Your task to perform on an android device: Open display settings Image 0: 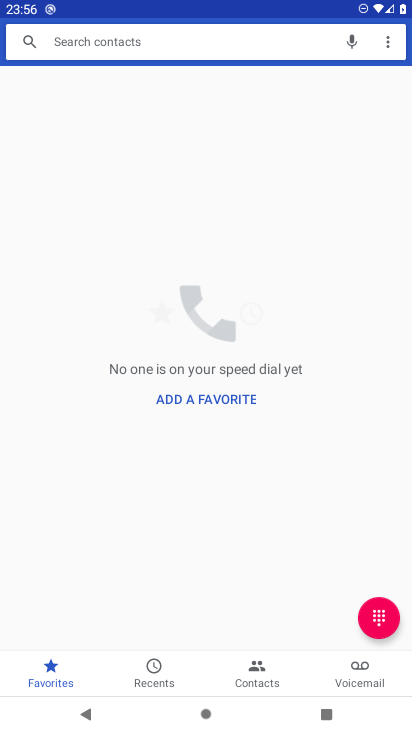
Step 0: press home button
Your task to perform on an android device: Open display settings Image 1: 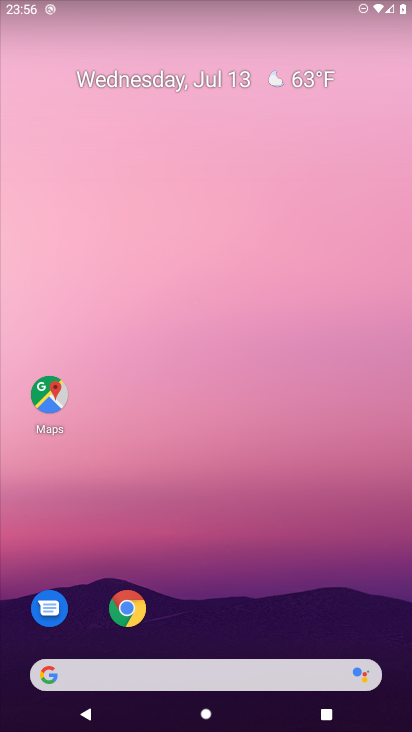
Step 1: drag from (247, 629) to (214, 102)
Your task to perform on an android device: Open display settings Image 2: 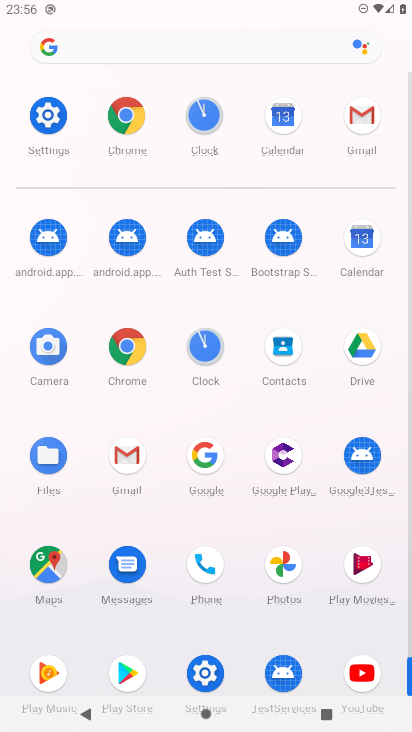
Step 2: click (51, 113)
Your task to perform on an android device: Open display settings Image 3: 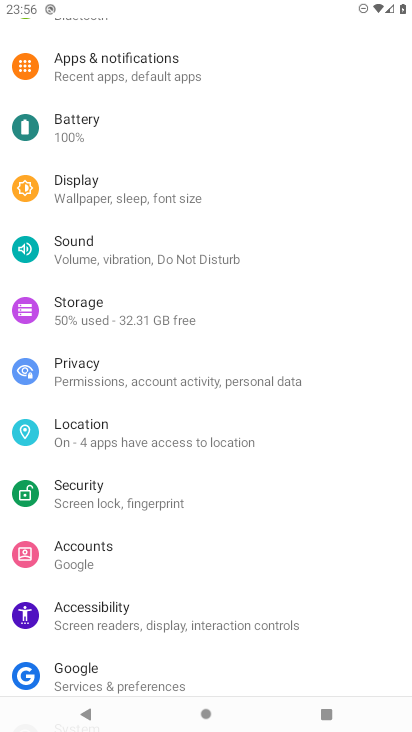
Step 3: click (102, 194)
Your task to perform on an android device: Open display settings Image 4: 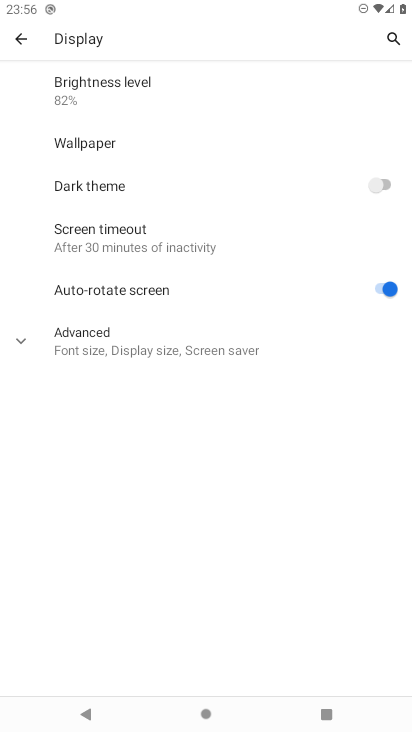
Step 4: task complete